Your task to perform on an android device: find snoozed emails in the gmail app Image 0: 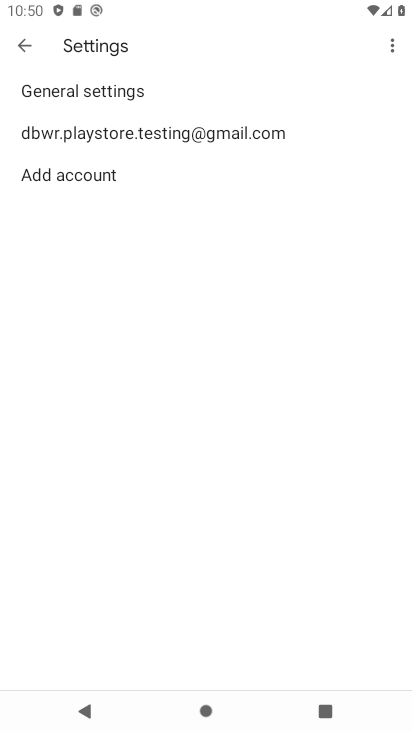
Step 0: press home button
Your task to perform on an android device: find snoozed emails in the gmail app Image 1: 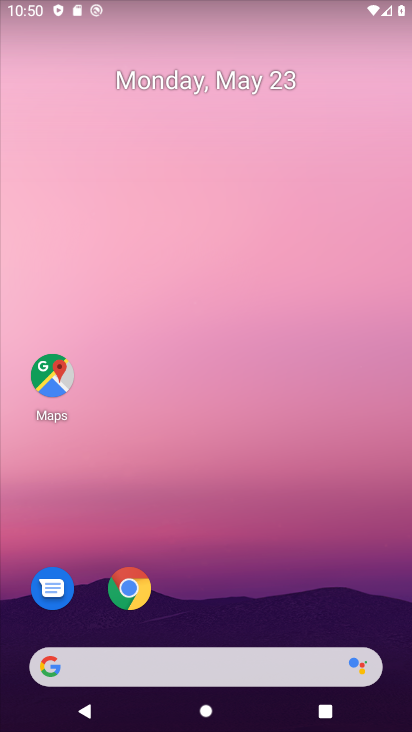
Step 1: drag from (184, 579) to (288, 24)
Your task to perform on an android device: find snoozed emails in the gmail app Image 2: 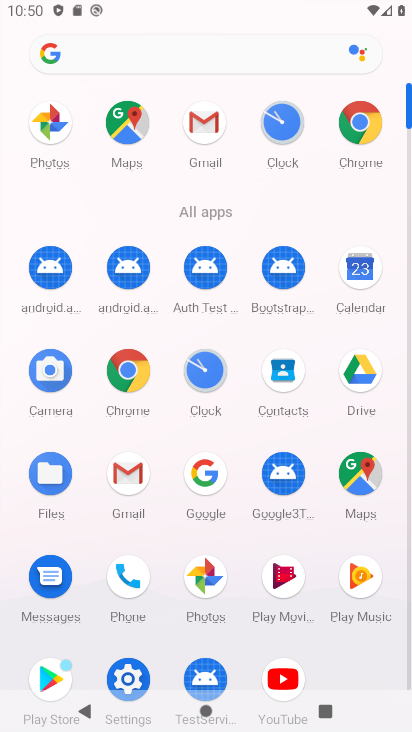
Step 2: click (124, 482)
Your task to perform on an android device: find snoozed emails in the gmail app Image 3: 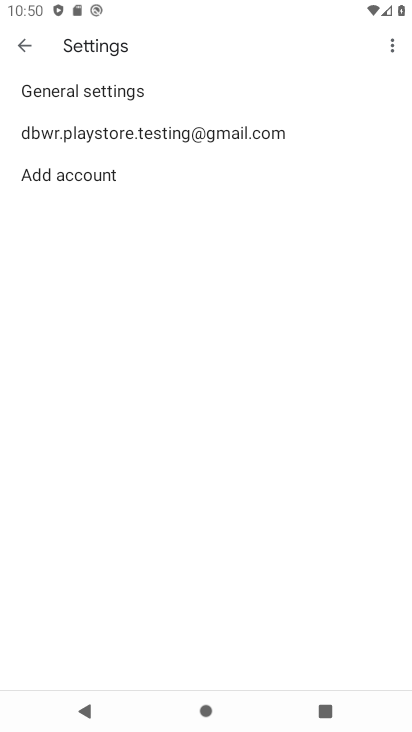
Step 3: click (26, 41)
Your task to perform on an android device: find snoozed emails in the gmail app Image 4: 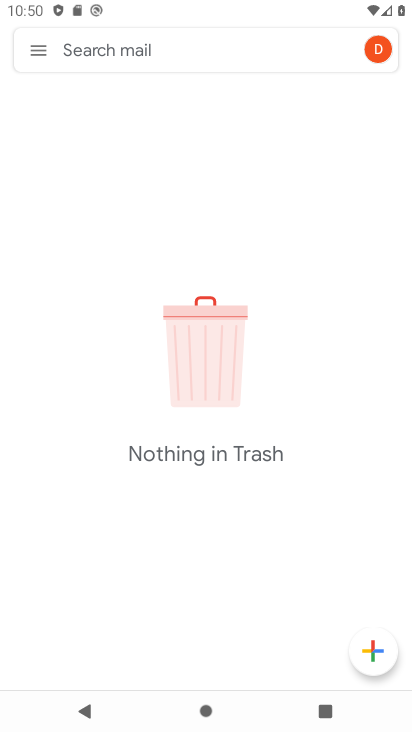
Step 4: click (42, 46)
Your task to perform on an android device: find snoozed emails in the gmail app Image 5: 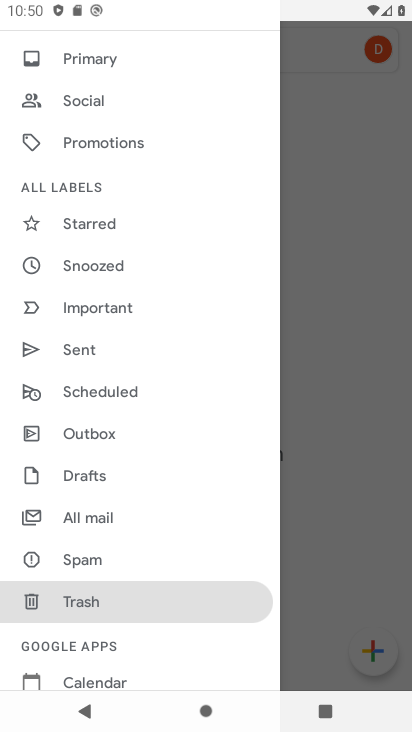
Step 5: click (127, 273)
Your task to perform on an android device: find snoozed emails in the gmail app Image 6: 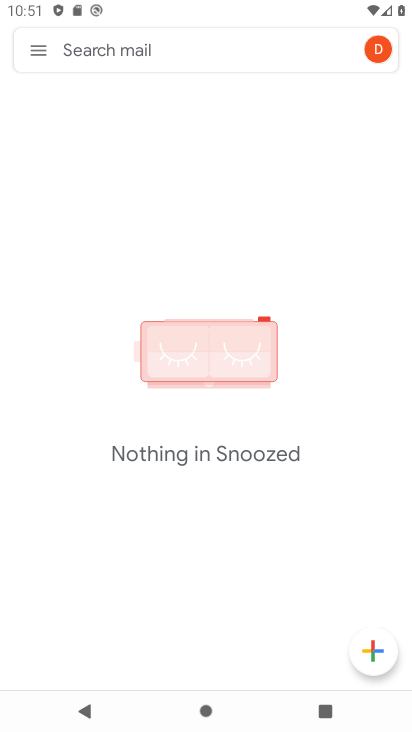
Step 6: task complete